Your task to perform on an android device: change alarm snooze length Image 0: 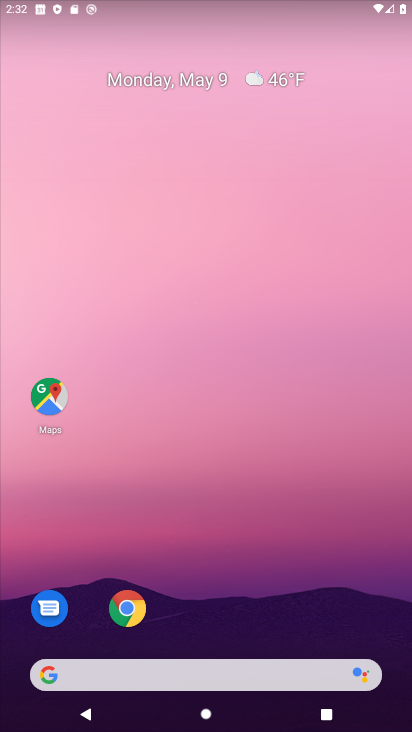
Step 0: drag from (174, 590) to (230, 218)
Your task to perform on an android device: change alarm snooze length Image 1: 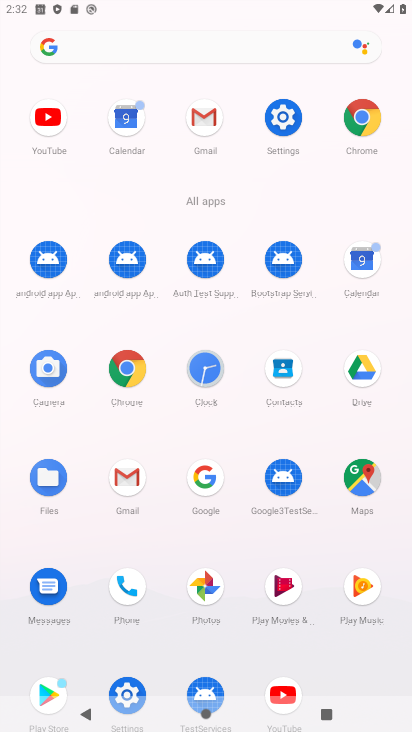
Step 1: click (210, 370)
Your task to perform on an android device: change alarm snooze length Image 2: 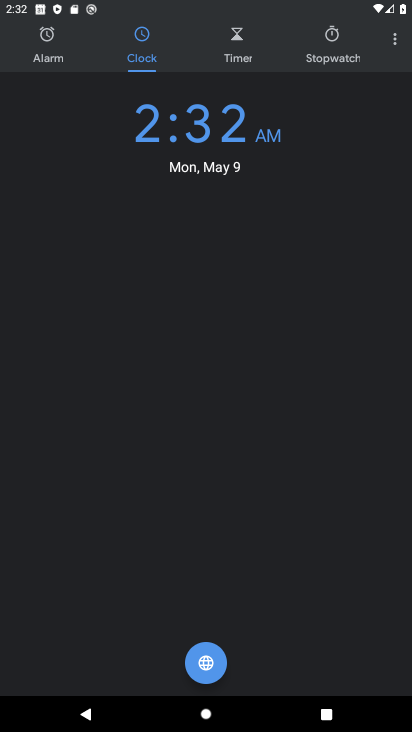
Step 2: click (396, 42)
Your task to perform on an android device: change alarm snooze length Image 3: 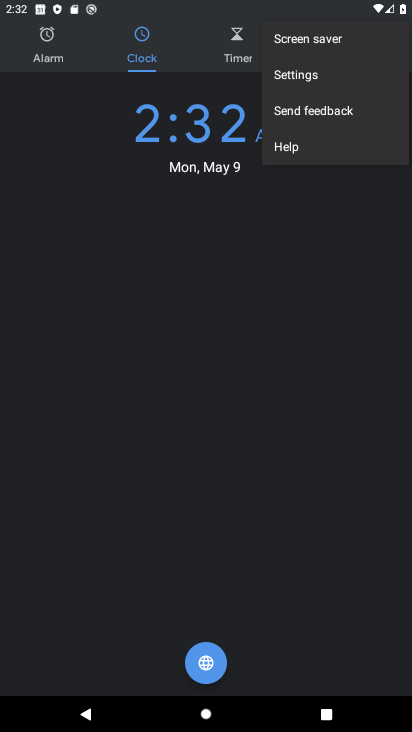
Step 3: click (339, 76)
Your task to perform on an android device: change alarm snooze length Image 4: 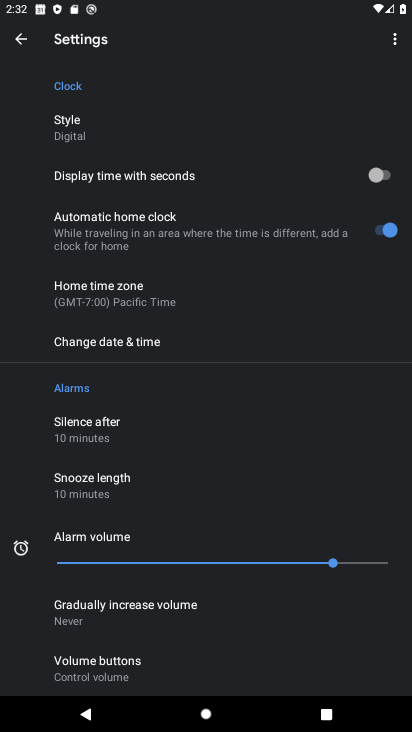
Step 4: click (106, 492)
Your task to perform on an android device: change alarm snooze length Image 5: 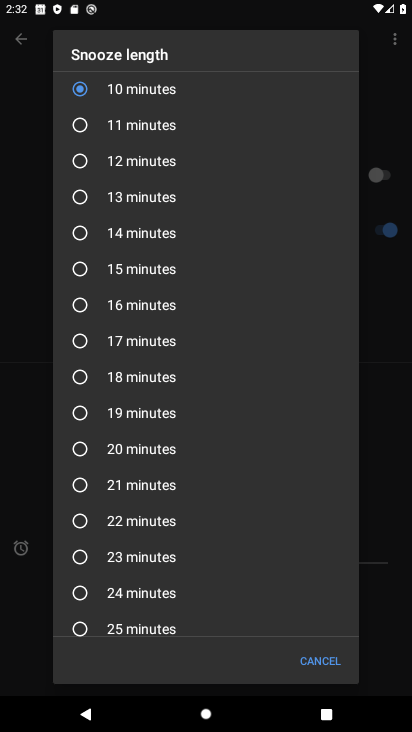
Step 5: click (133, 137)
Your task to perform on an android device: change alarm snooze length Image 6: 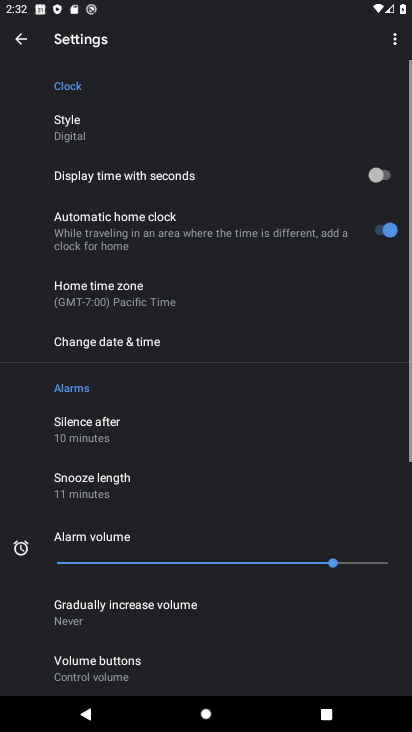
Step 6: task complete